Your task to perform on an android device: turn on location history Image 0: 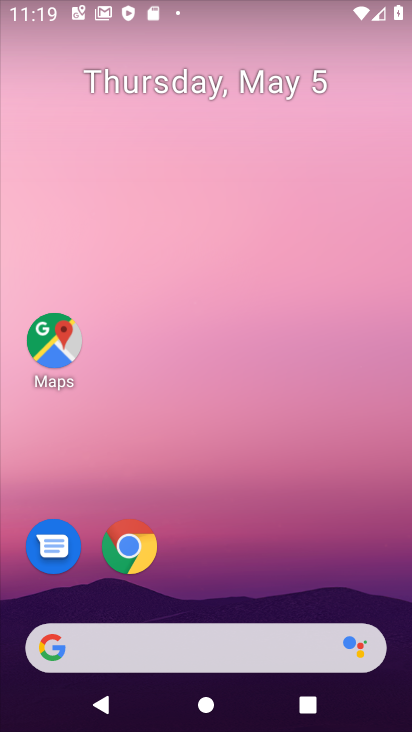
Step 0: drag from (258, 572) to (263, 68)
Your task to perform on an android device: turn on location history Image 1: 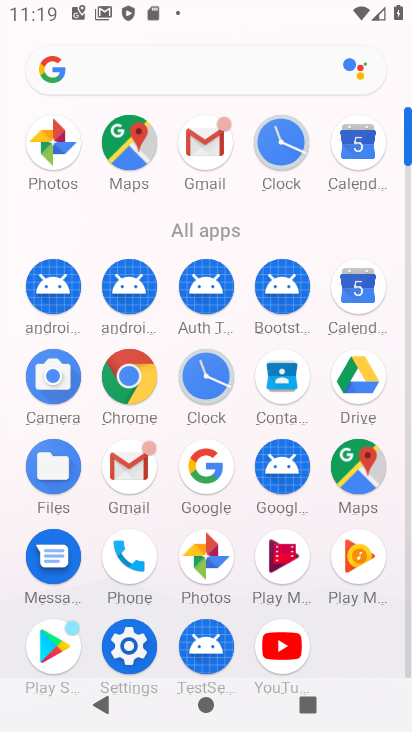
Step 1: click (135, 642)
Your task to perform on an android device: turn on location history Image 2: 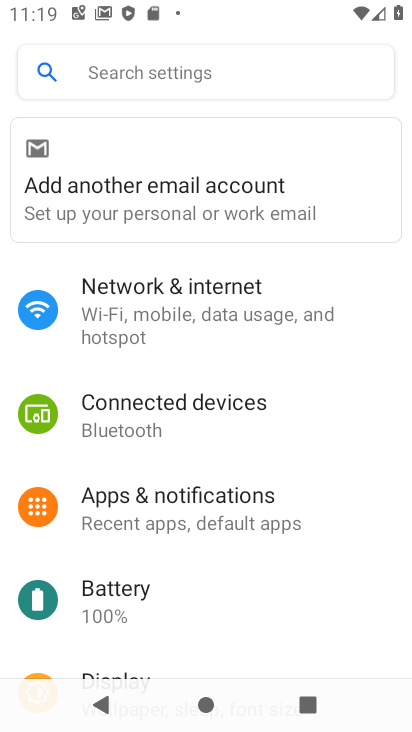
Step 2: drag from (203, 574) to (197, 233)
Your task to perform on an android device: turn on location history Image 3: 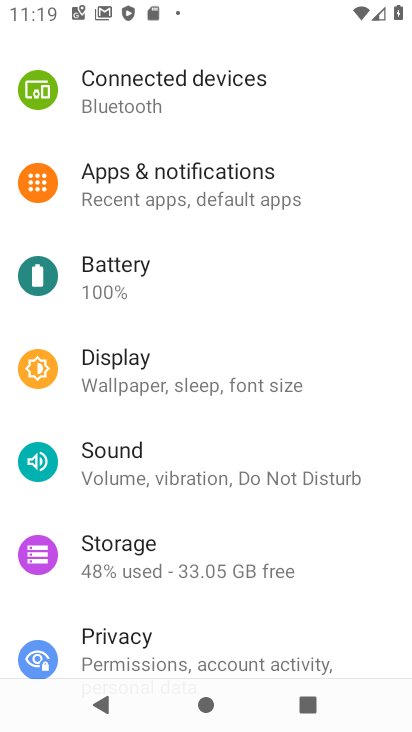
Step 3: drag from (218, 628) to (236, 299)
Your task to perform on an android device: turn on location history Image 4: 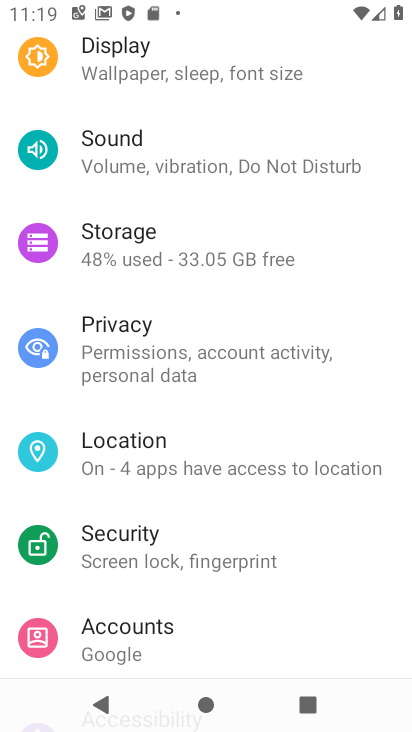
Step 4: click (212, 461)
Your task to perform on an android device: turn on location history Image 5: 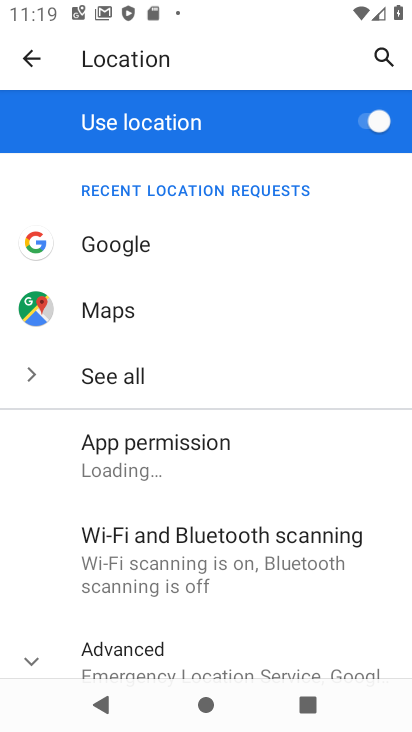
Step 5: drag from (216, 599) to (219, 320)
Your task to perform on an android device: turn on location history Image 6: 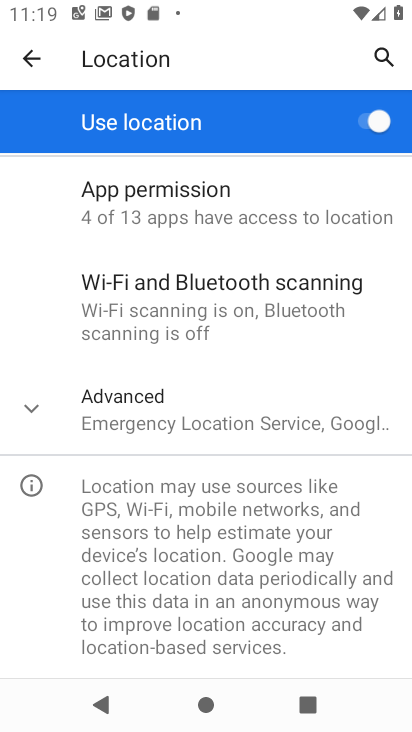
Step 6: click (245, 421)
Your task to perform on an android device: turn on location history Image 7: 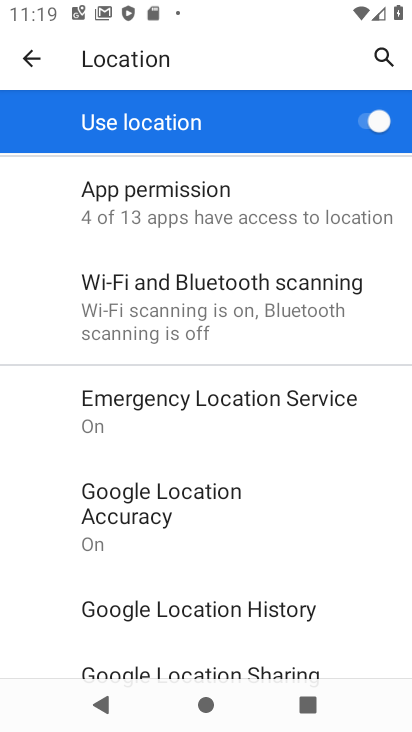
Step 7: click (256, 614)
Your task to perform on an android device: turn on location history Image 8: 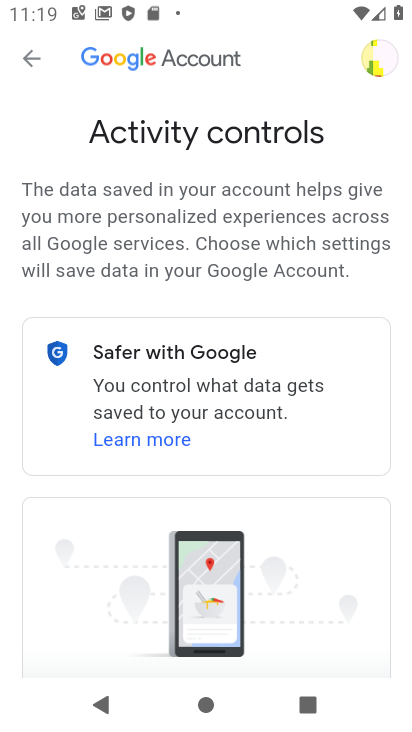
Step 8: task complete